Your task to perform on an android device: change notification settings in the gmail app Image 0: 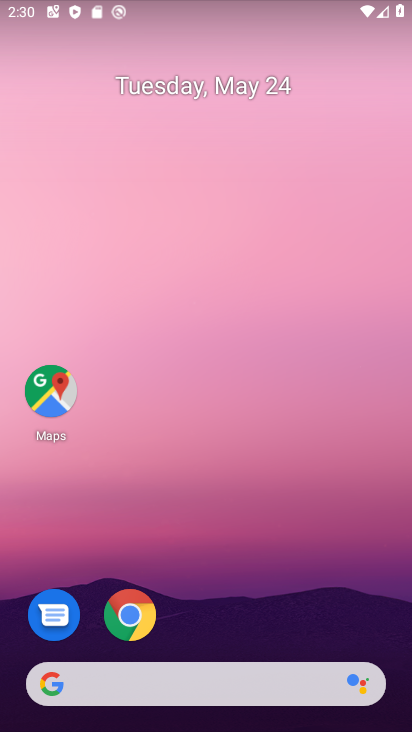
Step 0: click (340, 168)
Your task to perform on an android device: change notification settings in the gmail app Image 1: 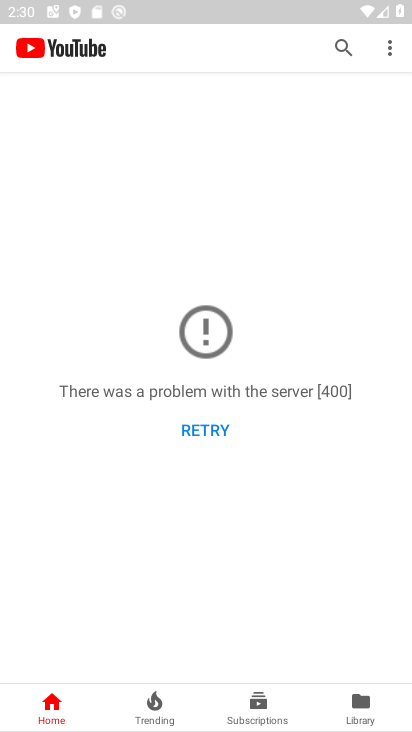
Step 1: press home button
Your task to perform on an android device: change notification settings in the gmail app Image 2: 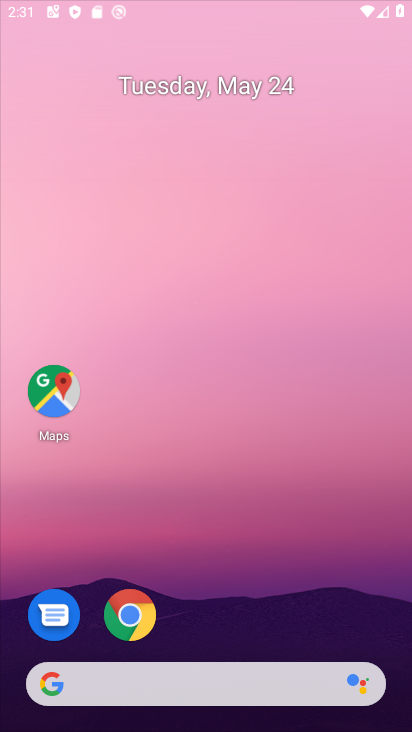
Step 2: drag from (251, 624) to (353, 198)
Your task to perform on an android device: change notification settings in the gmail app Image 3: 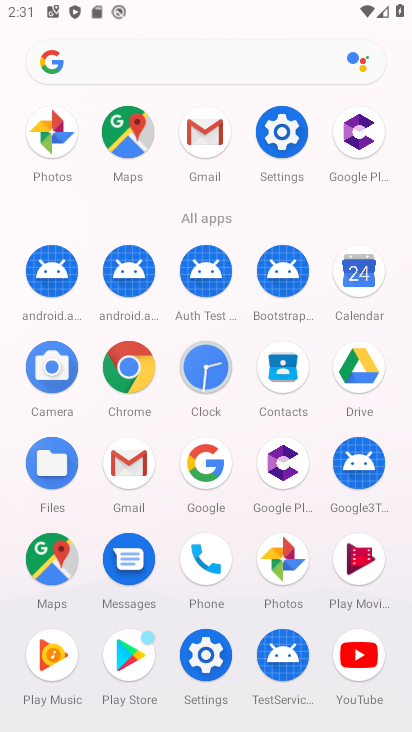
Step 3: click (131, 468)
Your task to perform on an android device: change notification settings in the gmail app Image 4: 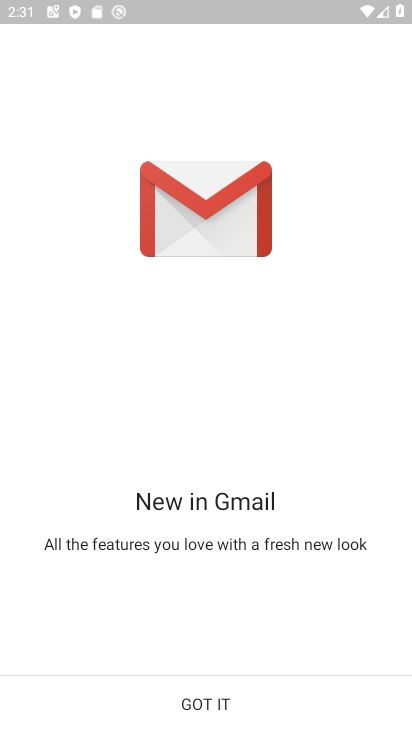
Step 4: click (221, 700)
Your task to perform on an android device: change notification settings in the gmail app Image 5: 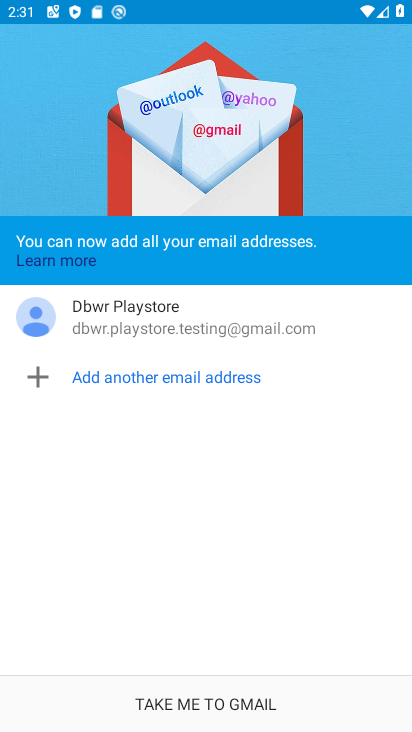
Step 5: click (231, 715)
Your task to perform on an android device: change notification settings in the gmail app Image 6: 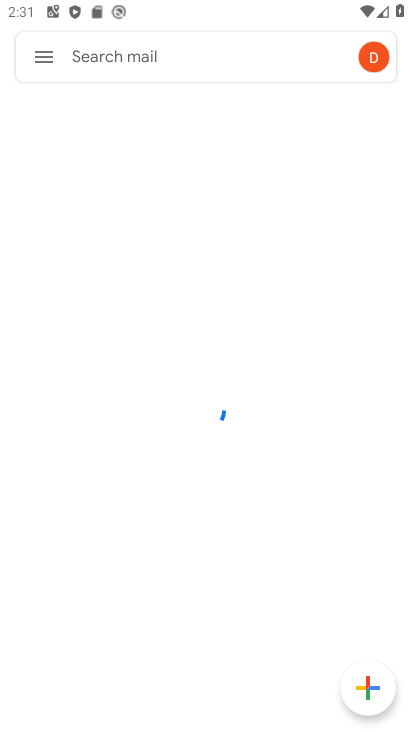
Step 6: click (47, 56)
Your task to perform on an android device: change notification settings in the gmail app Image 7: 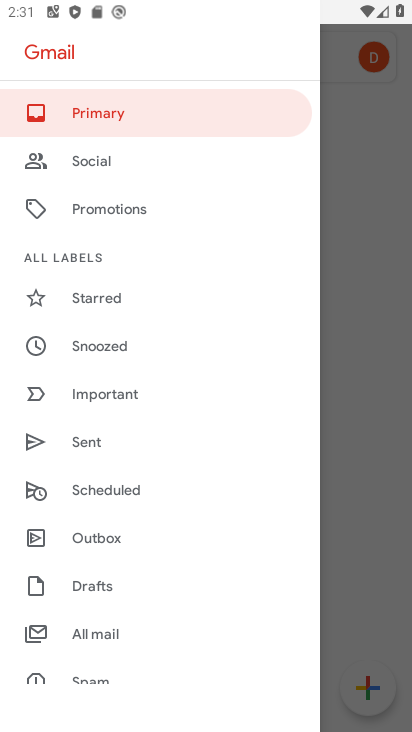
Step 7: drag from (107, 638) to (191, 328)
Your task to perform on an android device: change notification settings in the gmail app Image 8: 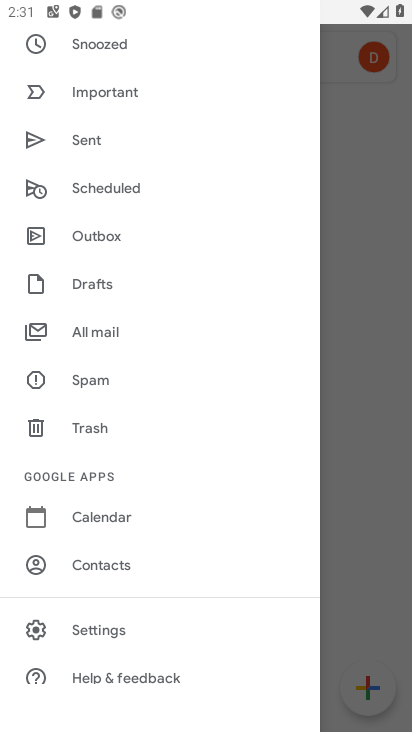
Step 8: drag from (133, 579) to (191, 303)
Your task to perform on an android device: change notification settings in the gmail app Image 9: 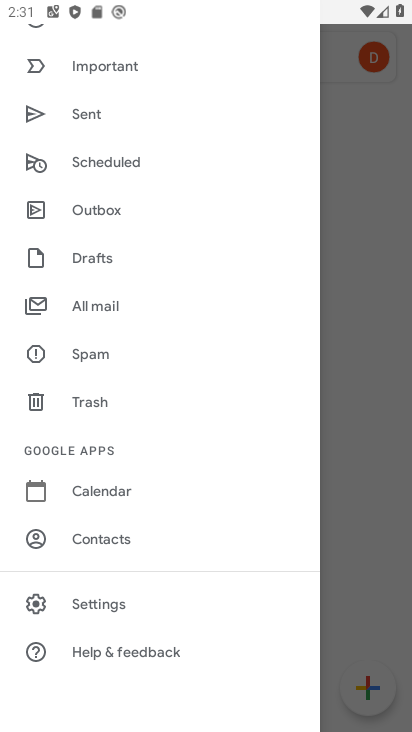
Step 9: click (134, 608)
Your task to perform on an android device: change notification settings in the gmail app Image 10: 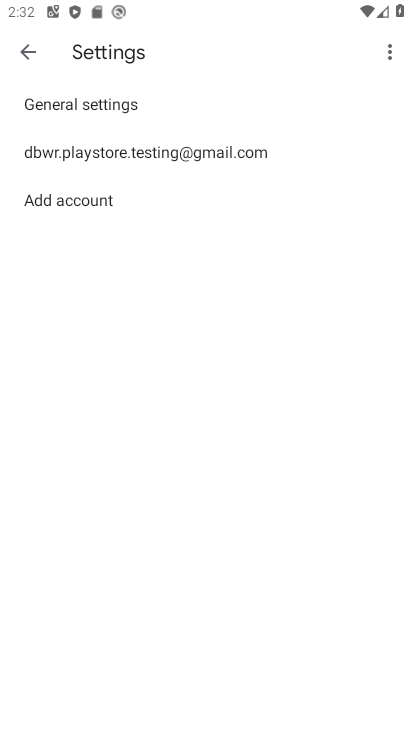
Step 10: click (164, 107)
Your task to perform on an android device: change notification settings in the gmail app Image 11: 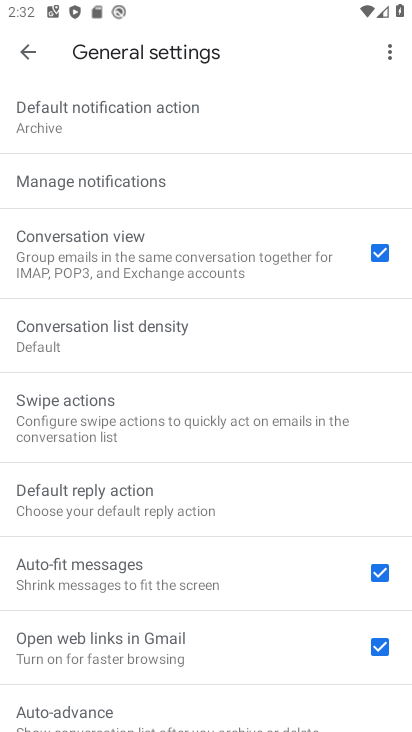
Step 11: click (193, 178)
Your task to perform on an android device: change notification settings in the gmail app Image 12: 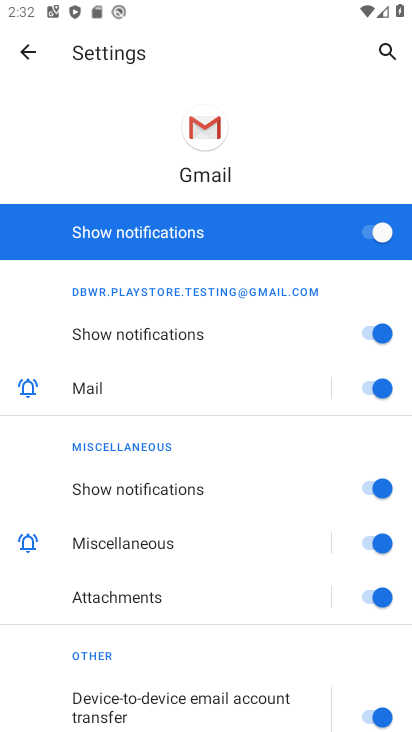
Step 12: click (375, 236)
Your task to perform on an android device: change notification settings in the gmail app Image 13: 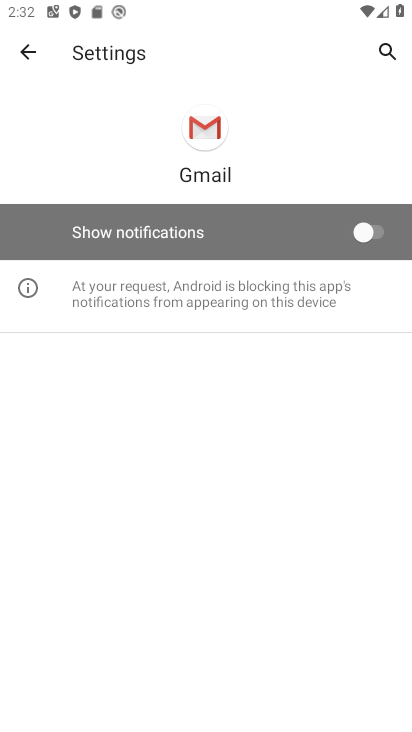
Step 13: task complete